Your task to perform on an android device: Go to accessibility settings Image 0: 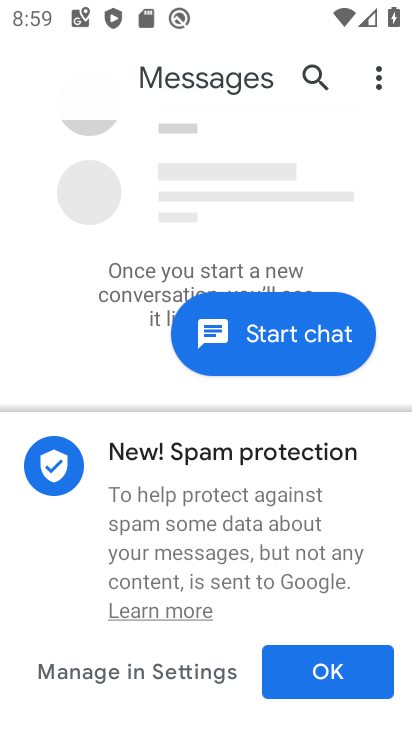
Step 0: press home button
Your task to perform on an android device: Go to accessibility settings Image 1: 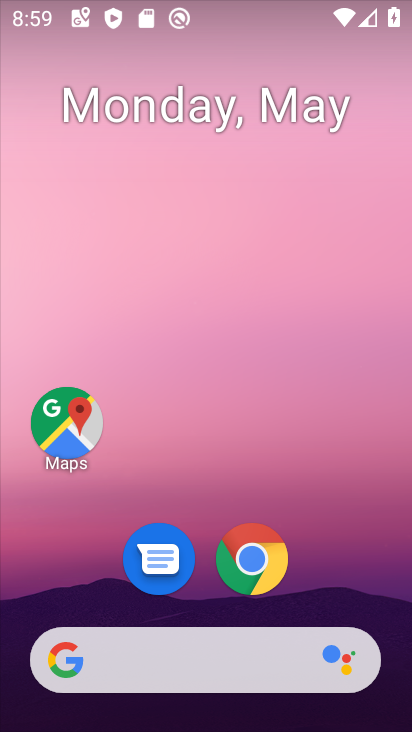
Step 1: drag from (339, 563) to (191, 126)
Your task to perform on an android device: Go to accessibility settings Image 2: 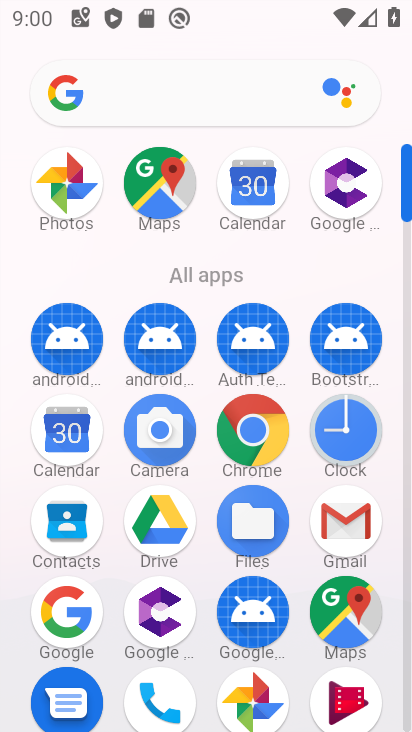
Step 2: drag from (207, 401) to (178, 156)
Your task to perform on an android device: Go to accessibility settings Image 3: 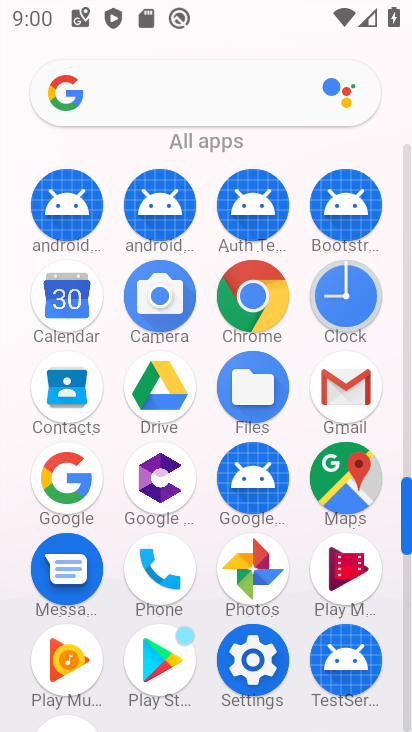
Step 3: click (254, 656)
Your task to perform on an android device: Go to accessibility settings Image 4: 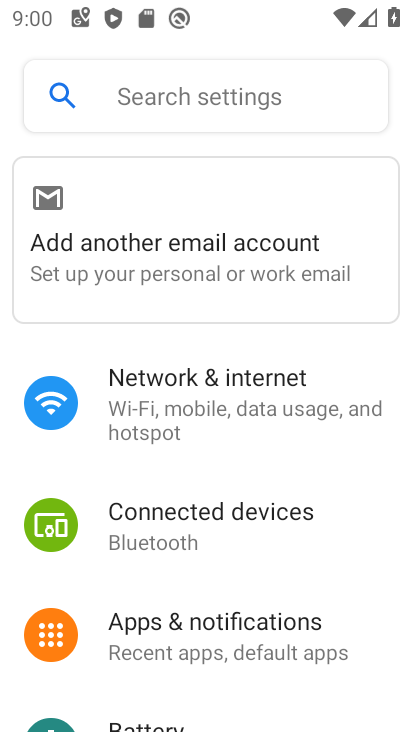
Step 4: drag from (266, 573) to (229, 257)
Your task to perform on an android device: Go to accessibility settings Image 5: 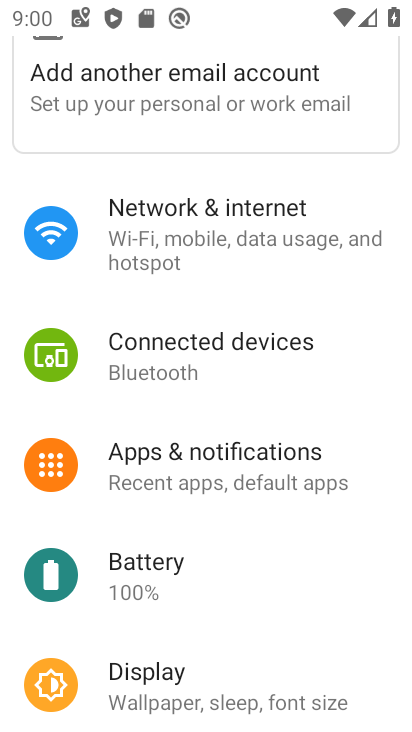
Step 5: drag from (237, 532) to (215, 250)
Your task to perform on an android device: Go to accessibility settings Image 6: 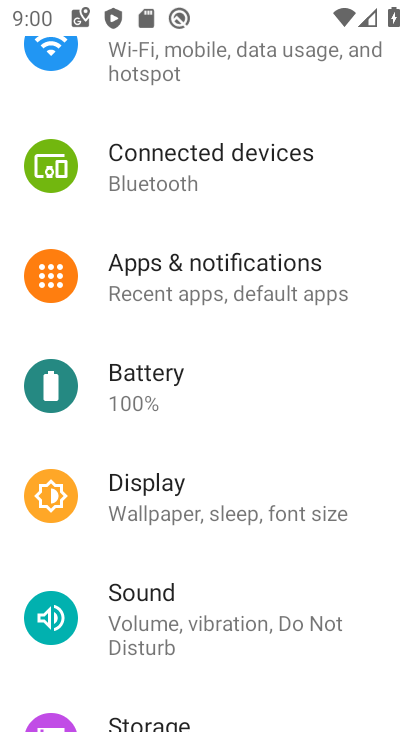
Step 6: drag from (261, 462) to (250, 249)
Your task to perform on an android device: Go to accessibility settings Image 7: 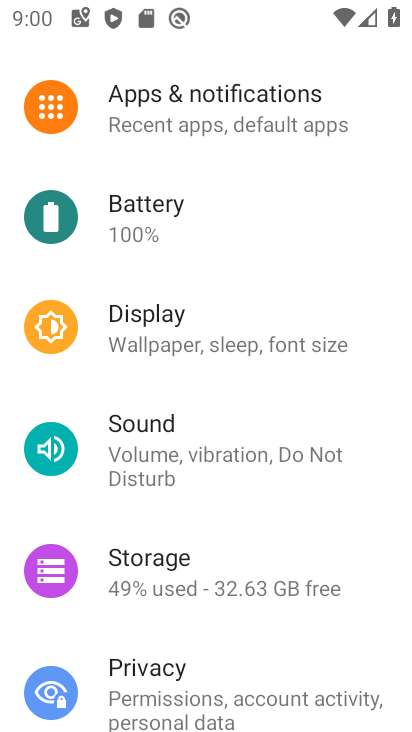
Step 7: drag from (252, 375) to (225, 76)
Your task to perform on an android device: Go to accessibility settings Image 8: 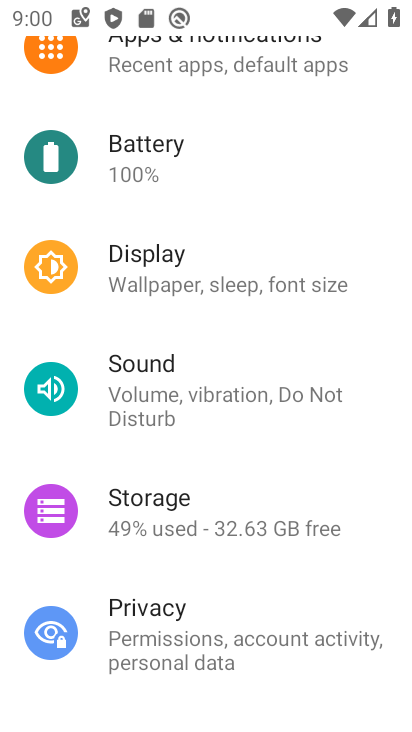
Step 8: click (229, 396)
Your task to perform on an android device: Go to accessibility settings Image 9: 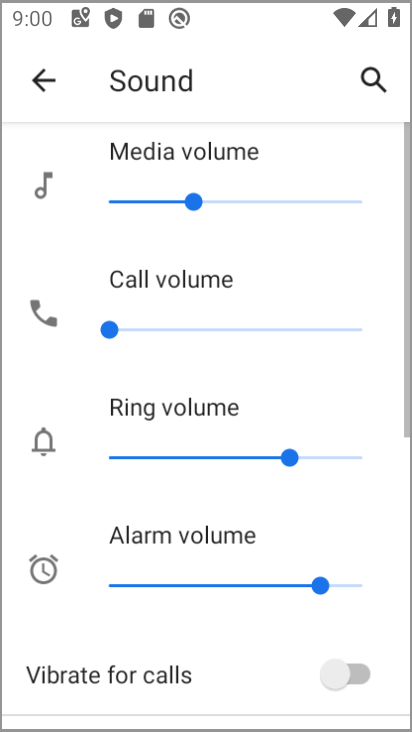
Step 9: drag from (229, 462) to (193, 212)
Your task to perform on an android device: Go to accessibility settings Image 10: 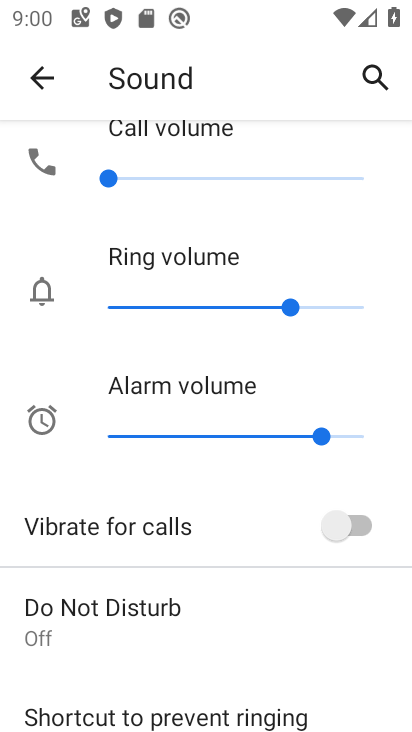
Step 10: click (40, 75)
Your task to perform on an android device: Go to accessibility settings Image 11: 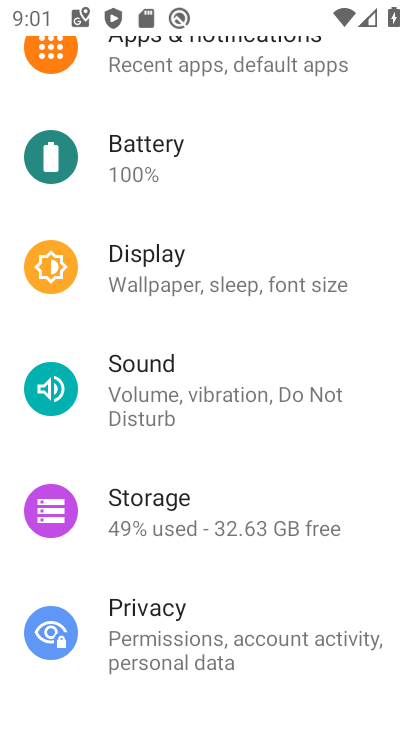
Step 11: drag from (207, 447) to (192, 239)
Your task to perform on an android device: Go to accessibility settings Image 12: 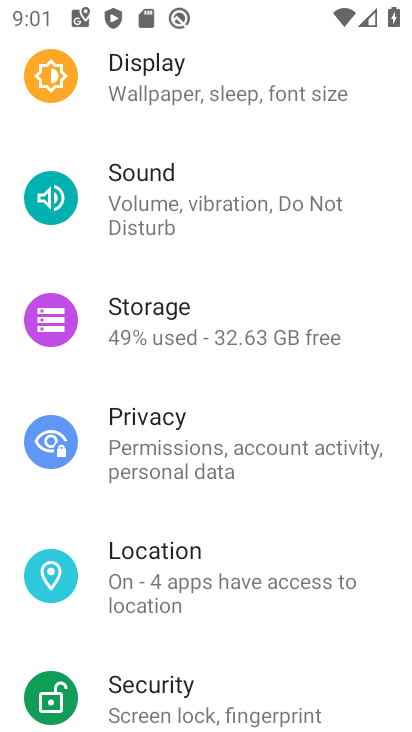
Step 12: drag from (224, 494) to (154, 226)
Your task to perform on an android device: Go to accessibility settings Image 13: 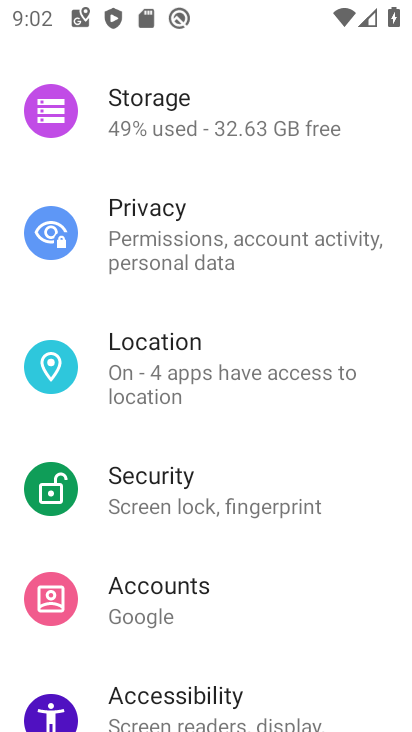
Step 13: drag from (240, 561) to (205, 281)
Your task to perform on an android device: Go to accessibility settings Image 14: 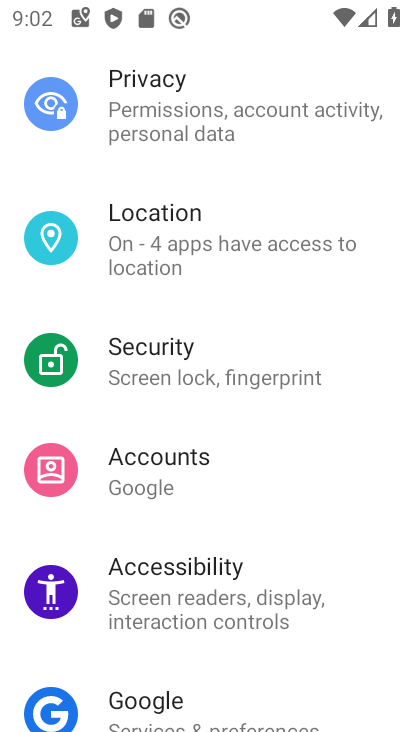
Step 14: click (177, 568)
Your task to perform on an android device: Go to accessibility settings Image 15: 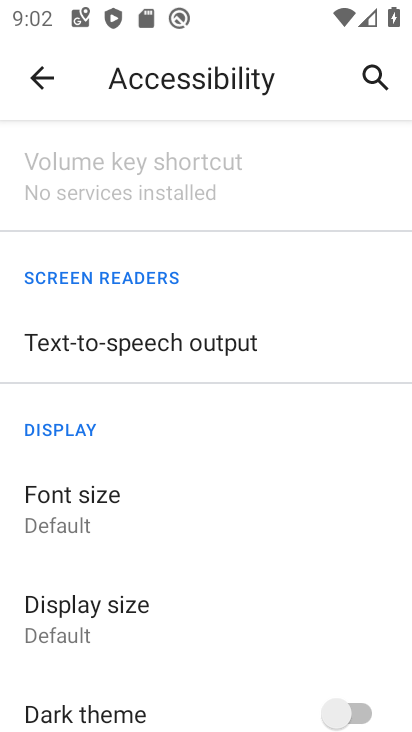
Step 15: task complete